Your task to perform on an android device: Search for seafood restaurants on Google Maps Image 0: 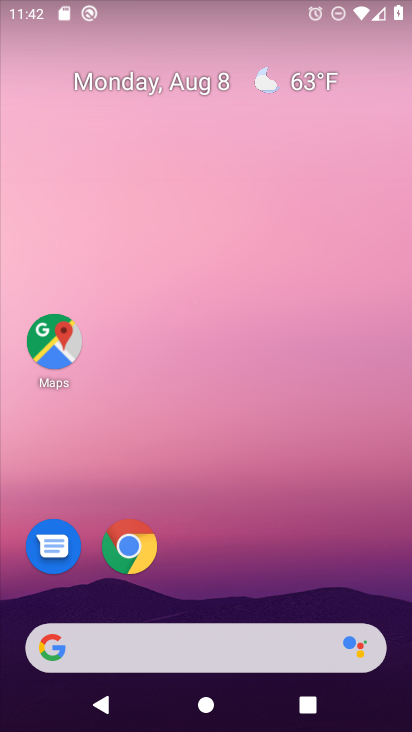
Step 0: press home button
Your task to perform on an android device: Search for seafood restaurants on Google Maps Image 1: 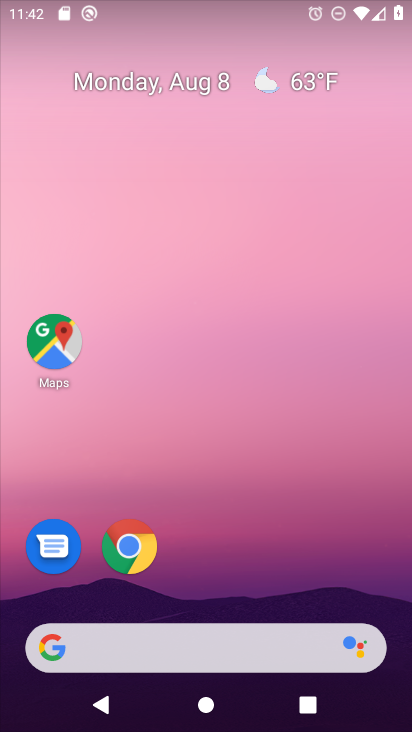
Step 1: click (54, 341)
Your task to perform on an android device: Search for seafood restaurants on Google Maps Image 2: 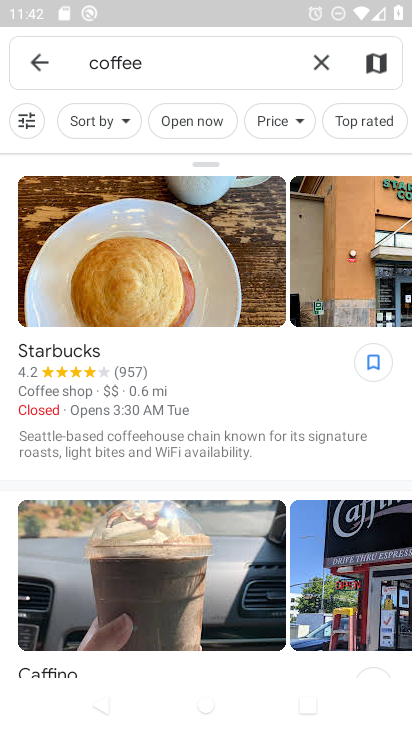
Step 2: click (318, 59)
Your task to perform on an android device: Search for seafood restaurants on Google Maps Image 3: 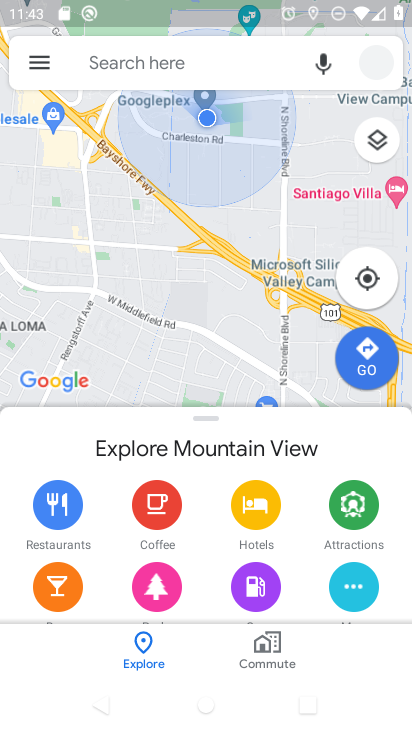
Step 3: click (135, 59)
Your task to perform on an android device: Search for seafood restaurants on Google Maps Image 4: 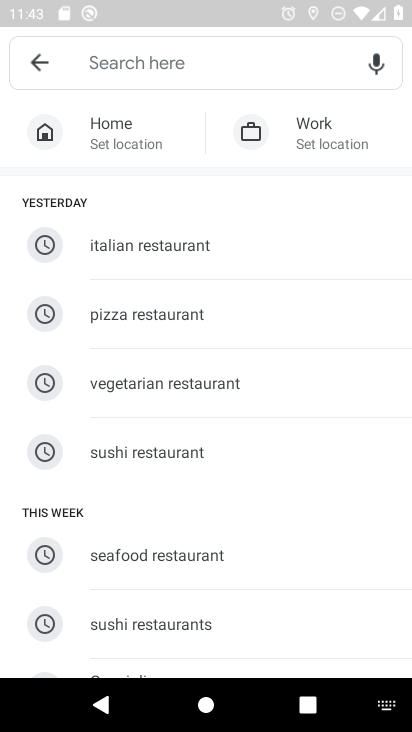
Step 4: drag from (209, 585) to (212, 450)
Your task to perform on an android device: Search for seafood restaurants on Google Maps Image 5: 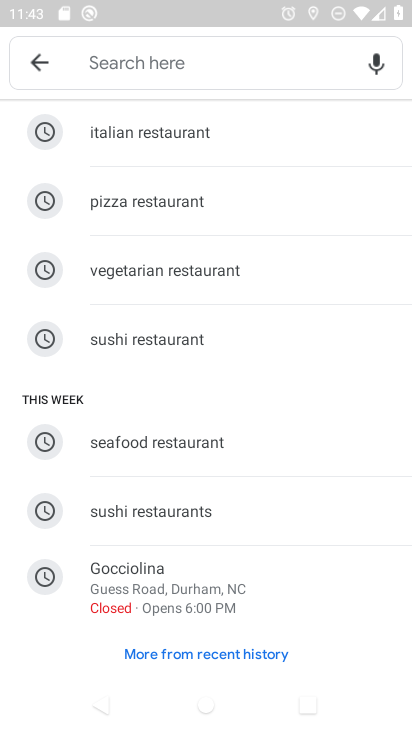
Step 5: click (249, 435)
Your task to perform on an android device: Search for seafood restaurants on Google Maps Image 6: 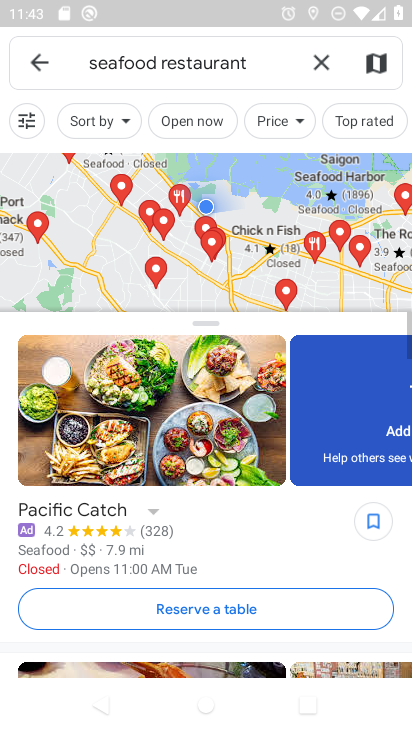
Step 6: task complete